Your task to perform on an android device: change alarm snooze length Image 0: 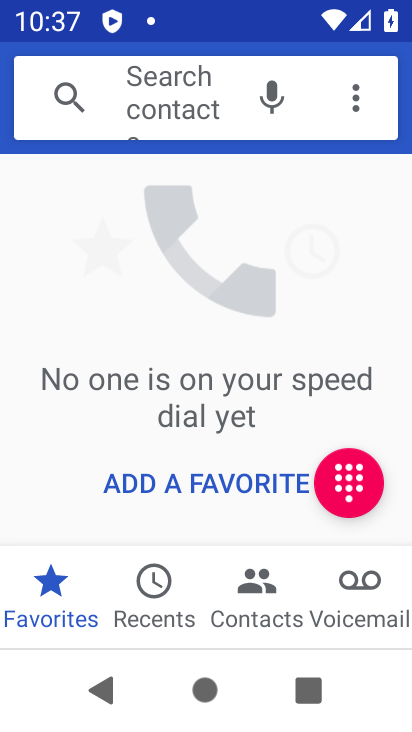
Step 0: press home button
Your task to perform on an android device: change alarm snooze length Image 1: 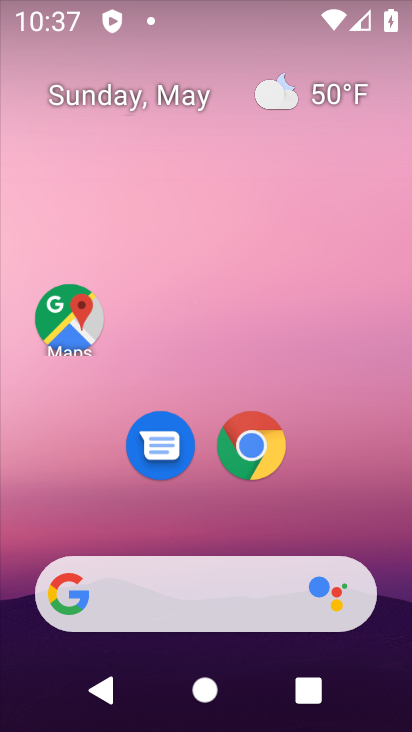
Step 1: drag from (209, 520) to (292, 6)
Your task to perform on an android device: change alarm snooze length Image 2: 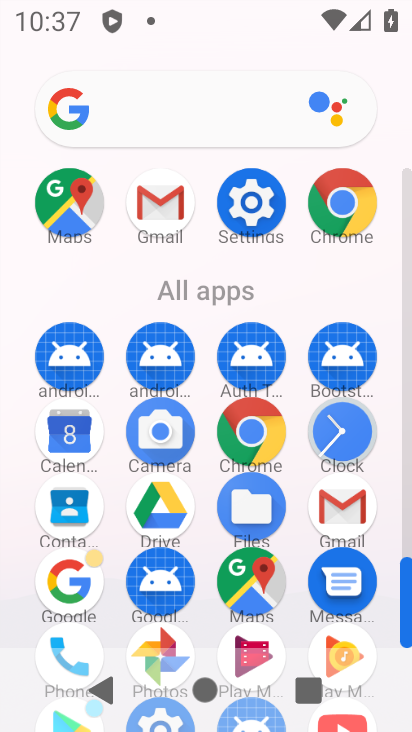
Step 2: click (353, 437)
Your task to perform on an android device: change alarm snooze length Image 3: 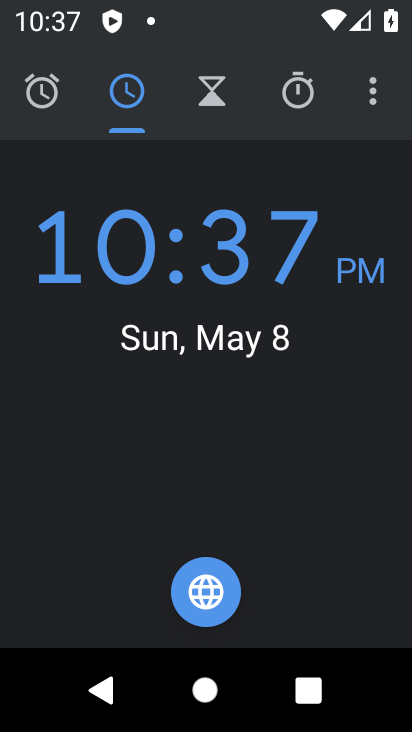
Step 3: click (371, 91)
Your task to perform on an android device: change alarm snooze length Image 4: 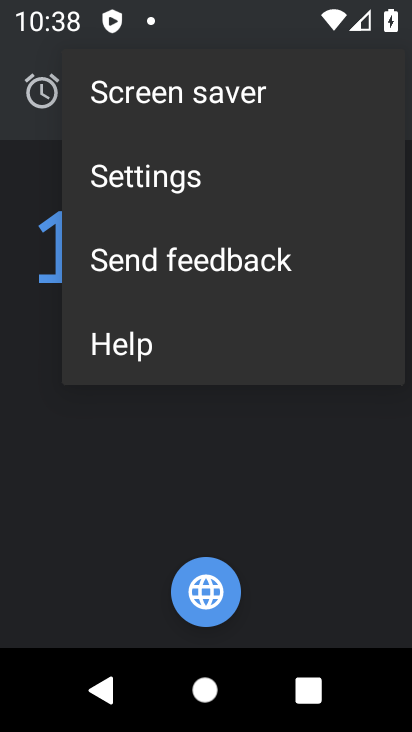
Step 4: click (160, 168)
Your task to perform on an android device: change alarm snooze length Image 5: 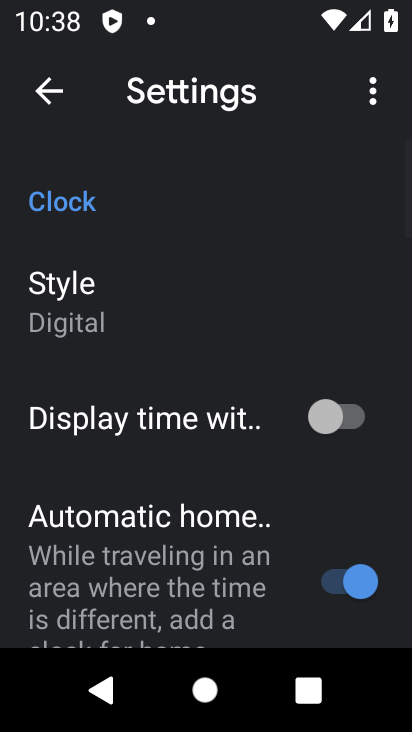
Step 5: drag from (173, 452) to (220, 180)
Your task to perform on an android device: change alarm snooze length Image 6: 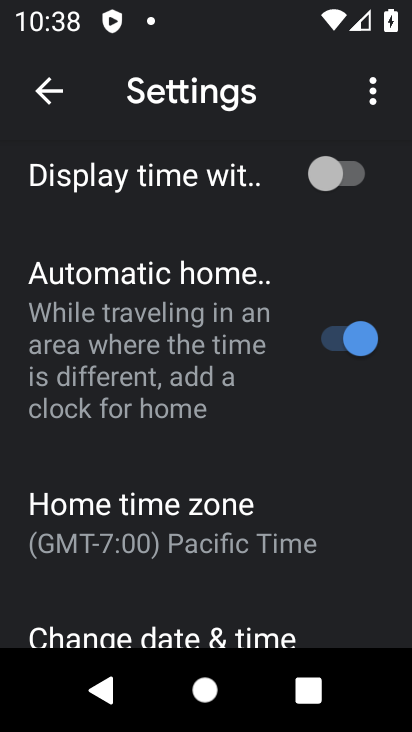
Step 6: drag from (151, 513) to (187, 196)
Your task to perform on an android device: change alarm snooze length Image 7: 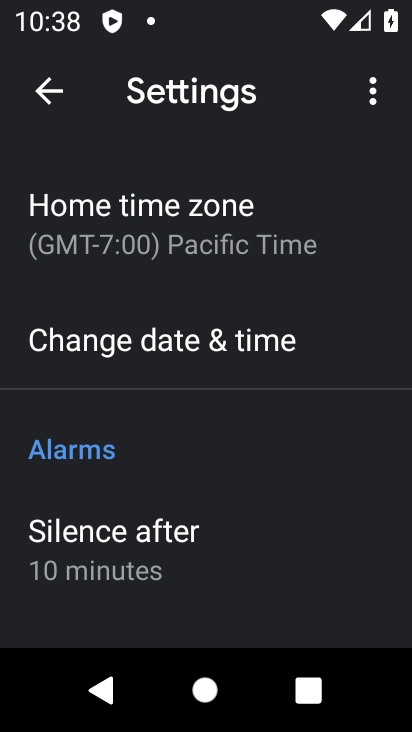
Step 7: drag from (195, 527) to (232, 220)
Your task to perform on an android device: change alarm snooze length Image 8: 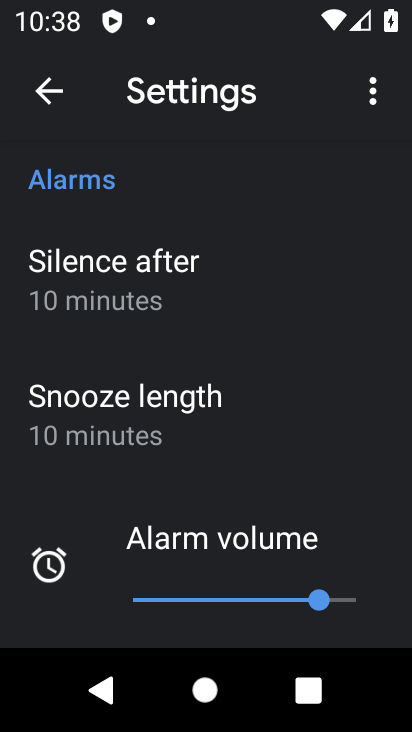
Step 8: click (162, 437)
Your task to perform on an android device: change alarm snooze length Image 9: 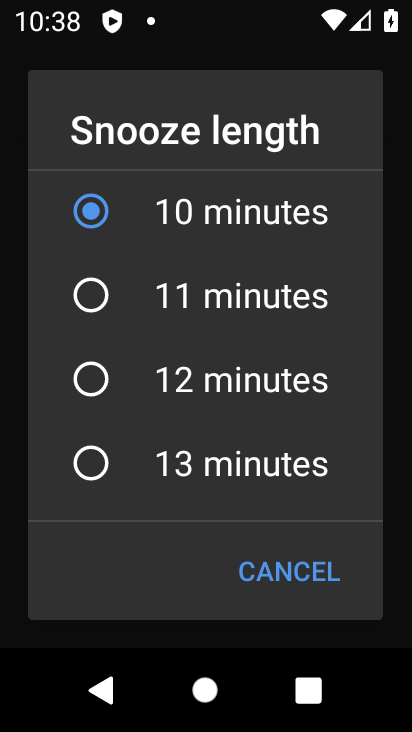
Step 9: drag from (98, 451) to (131, 236)
Your task to perform on an android device: change alarm snooze length Image 10: 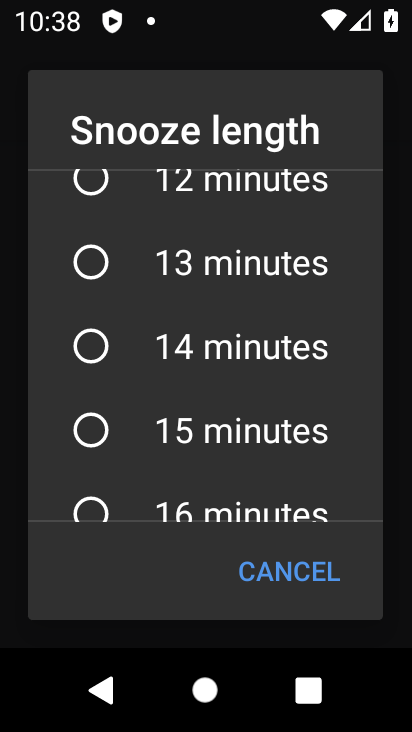
Step 10: click (98, 331)
Your task to perform on an android device: change alarm snooze length Image 11: 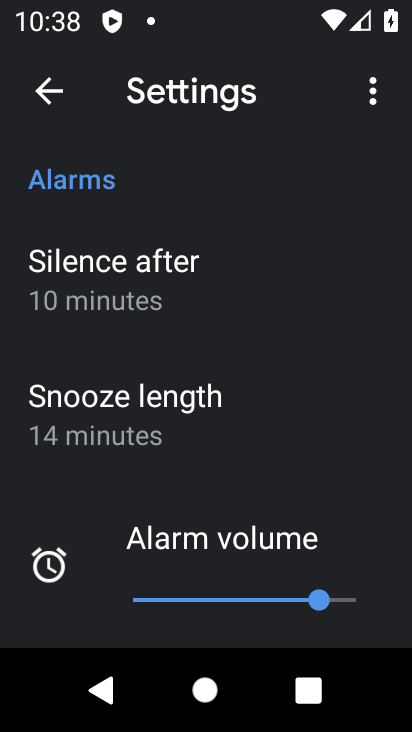
Step 11: task complete